Your task to perform on an android device: toggle location history Image 0: 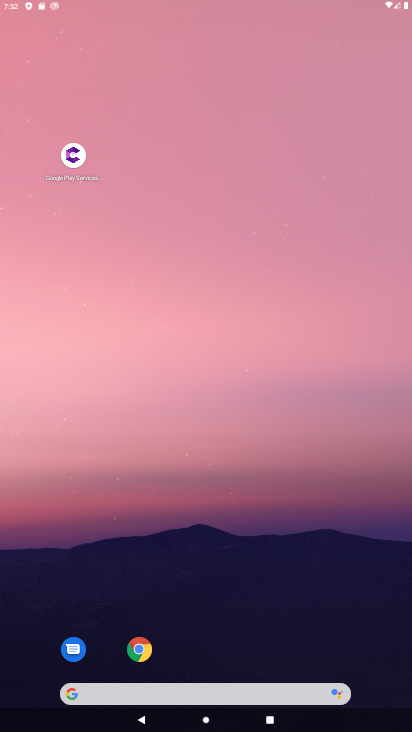
Step 0: drag from (208, 629) to (299, 1)
Your task to perform on an android device: toggle location history Image 1: 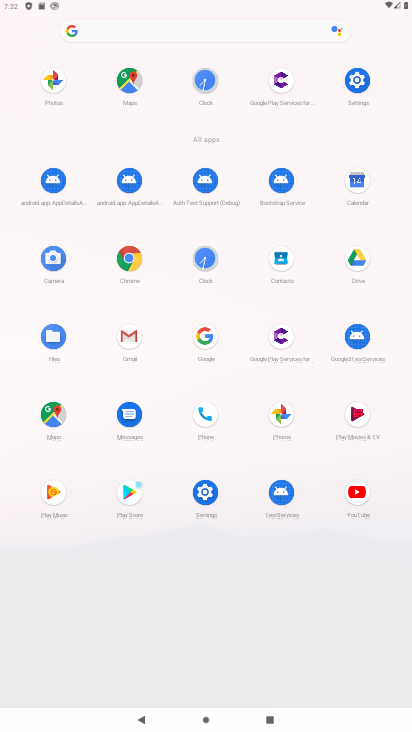
Step 1: click (359, 81)
Your task to perform on an android device: toggle location history Image 2: 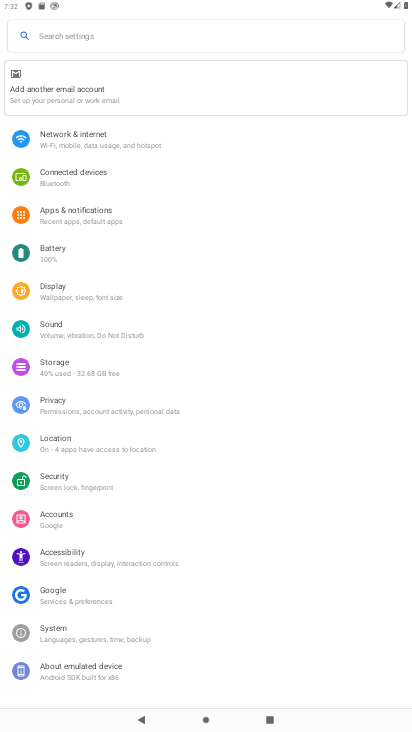
Step 2: click (63, 445)
Your task to perform on an android device: toggle location history Image 3: 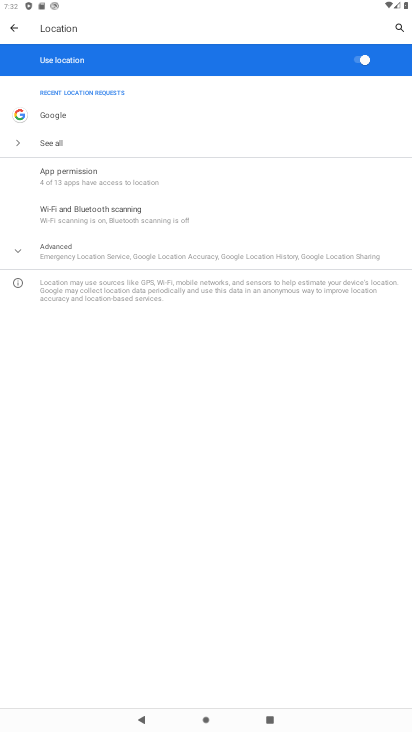
Step 3: click (56, 256)
Your task to perform on an android device: toggle location history Image 4: 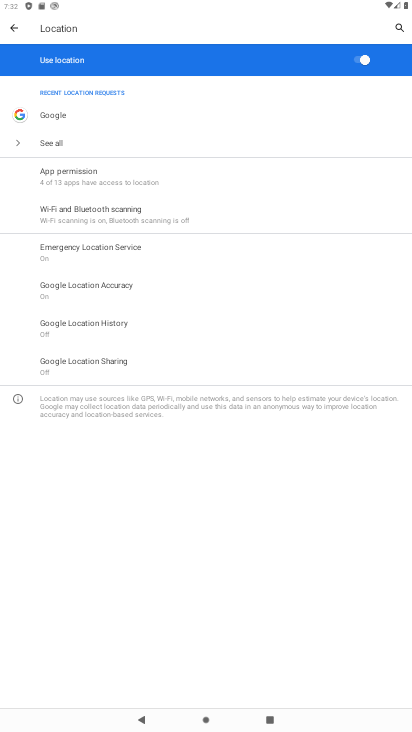
Step 4: click (97, 328)
Your task to perform on an android device: toggle location history Image 5: 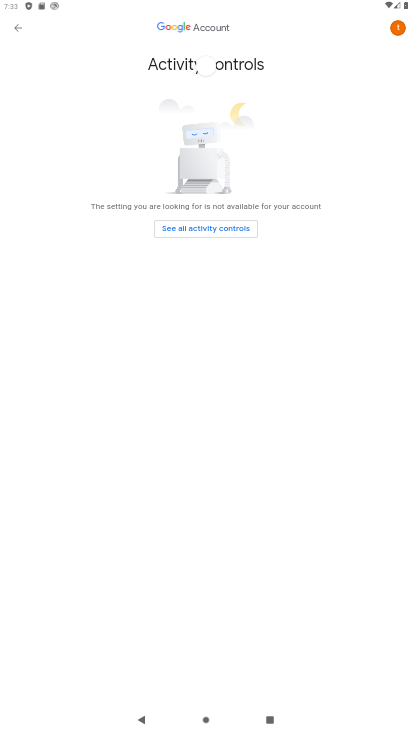
Step 5: click (173, 223)
Your task to perform on an android device: toggle location history Image 6: 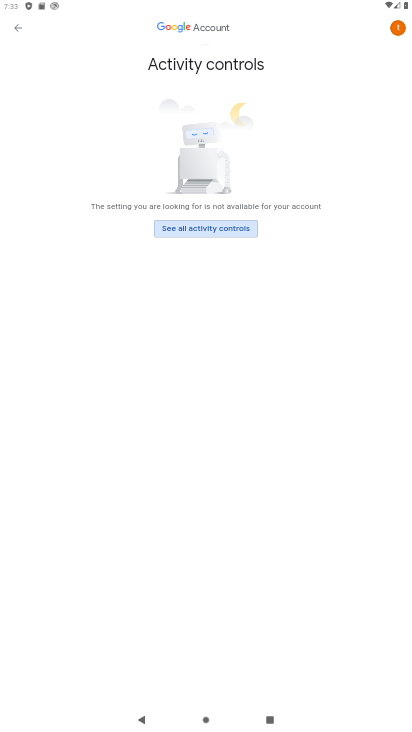
Step 6: click (171, 223)
Your task to perform on an android device: toggle location history Image 7: 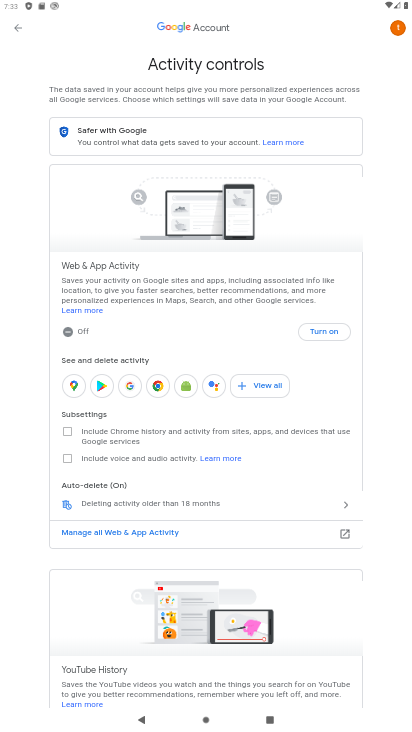
Step 7: click (320, 326)
Your task to perform on an android device: toggle location history Image 8: 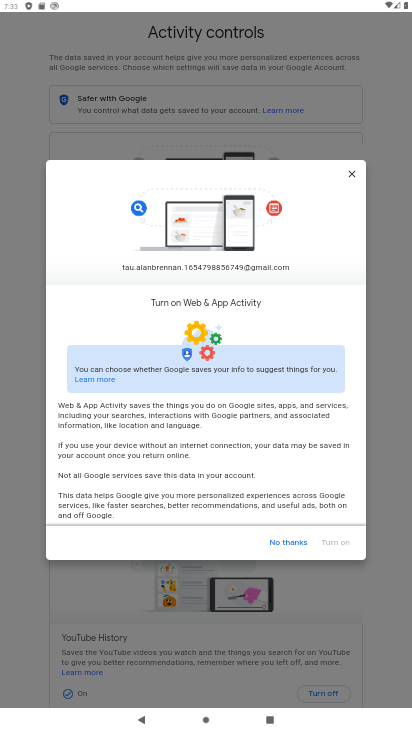
Step 8: drag from (209, 444) to (183, 178)
Your task to perform on an android device: toggle location history Image 9: 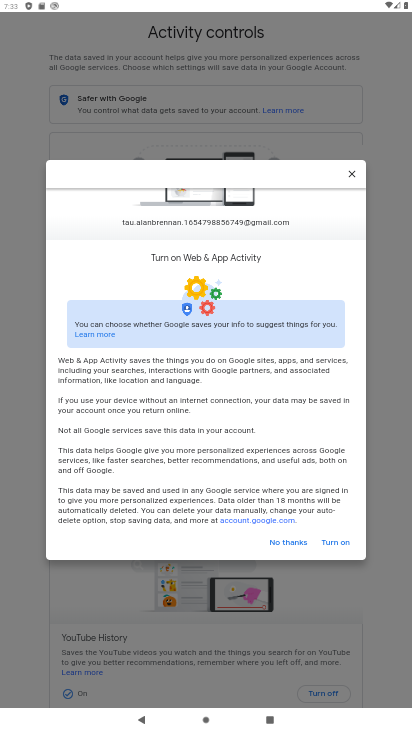
Step 9: drag from (186, 437) to (186, 136)
Your task to perform on an android device: toggle location history Image 10: 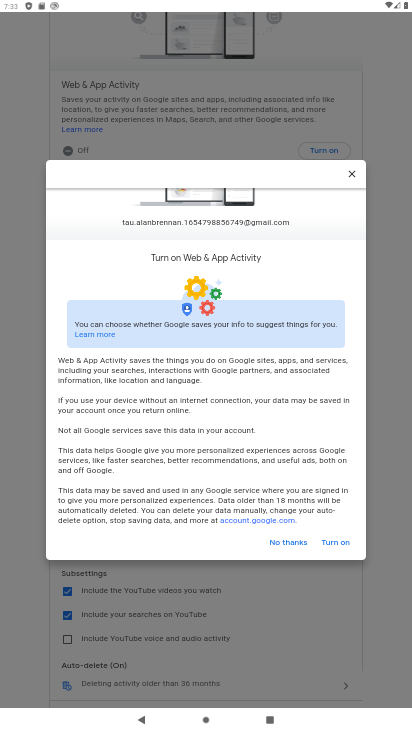
Step 10: drag from (160, 441) to (214, 182)
Your task to perform on an android device: toggle location history Image 11: 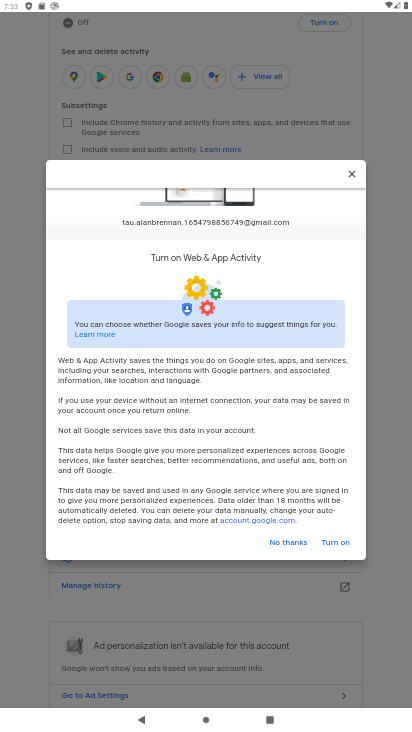
Step 11: click (329, 542)
Your task to perform on an android device: toggle location history Image 12: 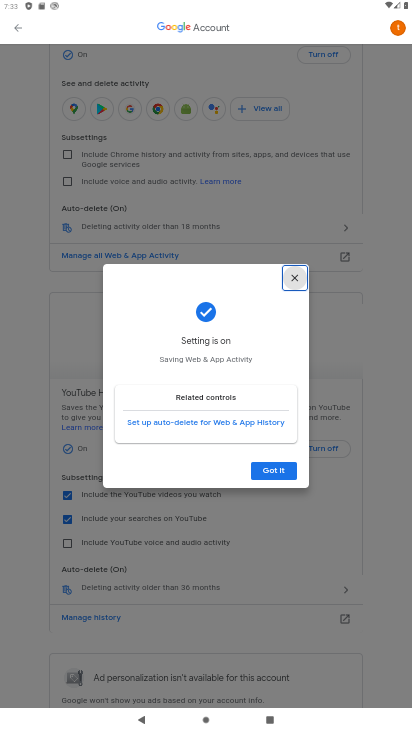
Step 12: click (272, 464)
Your task to perform on an android device: toggle location history Image 13: 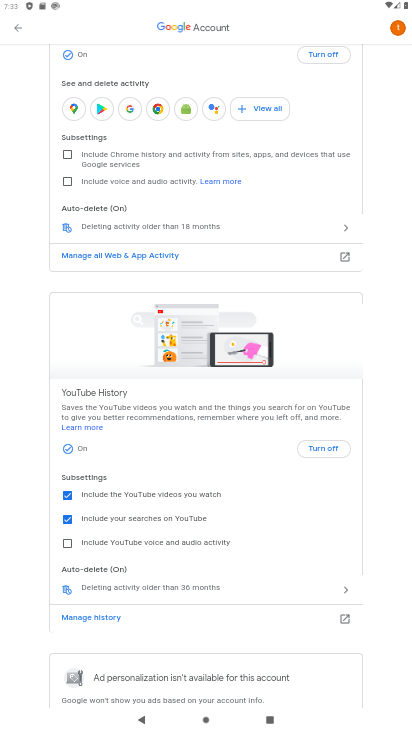
Step 13: task complete